Your task to perform on an android device: Open Yahoo.com Image 0: 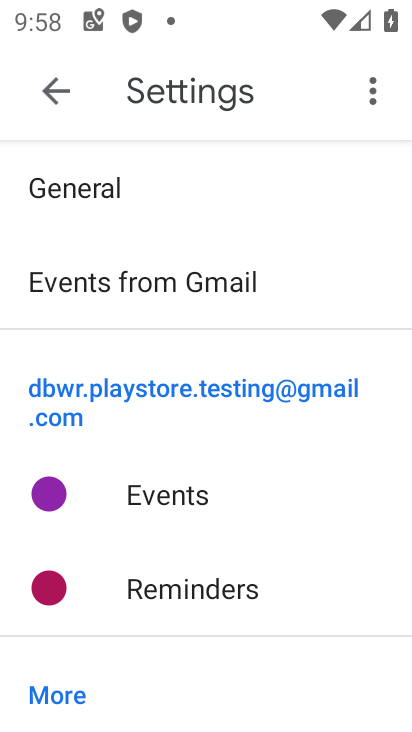
Step 0: press home button
Your task to perform on an android device: Open Yahoo.com Image 1: 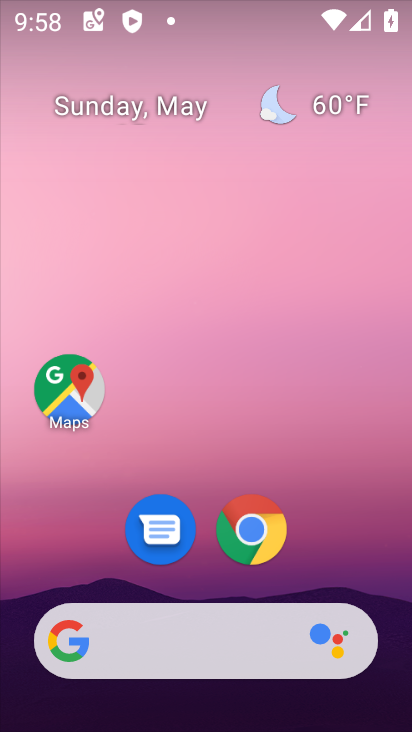
Step 1: drag from (368, 545) to (363, 288)
Your task to perform on an android device: Open Yahoo.com Image 2: 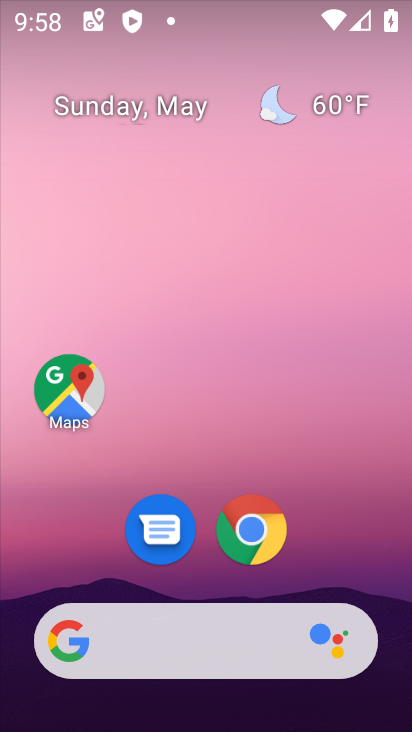
Step 2: click (276, 521)
Your task to perform on an android device: Open Yahoo.com Image 3: 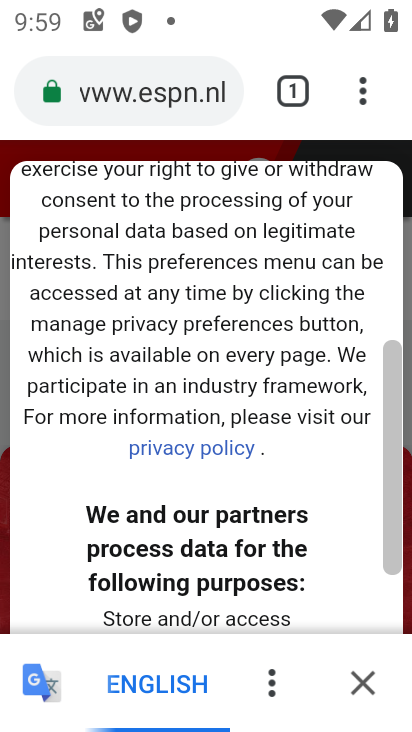
Step 3: click (174, 109)
Your task to perform on an android device: Open Yahoo.com Image 4: 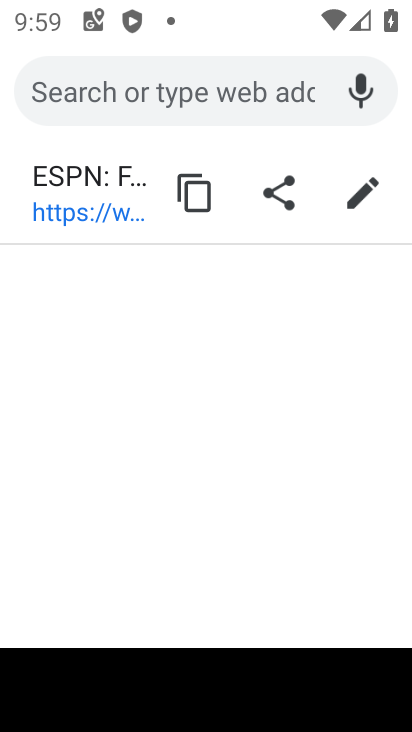
Step 4: type "yahoo"
Your task to perform on an android device: Open Yahoo.com Image 5: 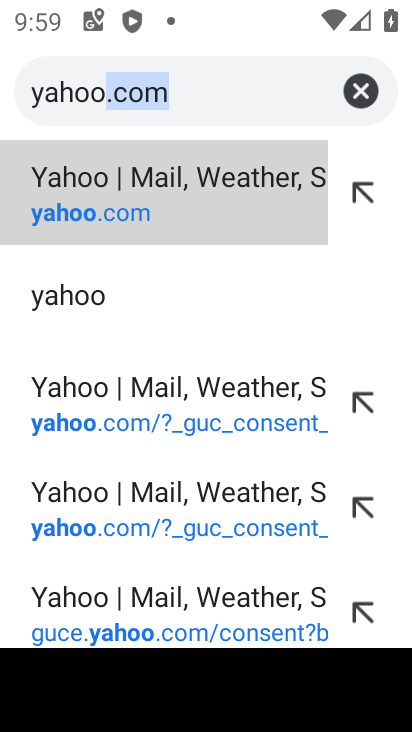
Step 5: click (92, 209)
Your task to perform on an android device: Open Yahoo.com Image 6: 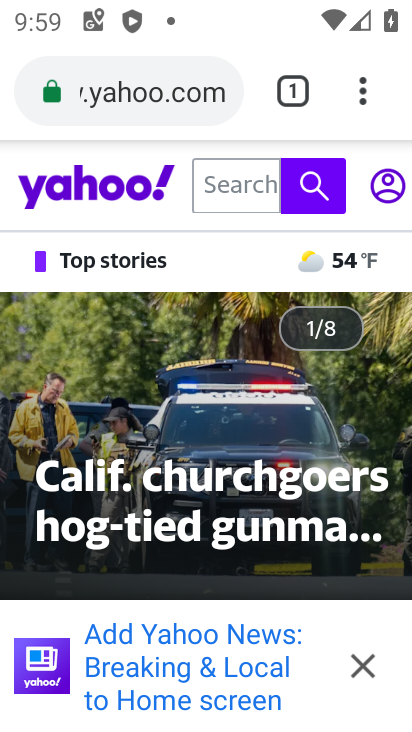
Step 6: task complete